Your task to perform on an android device: Open Google Chrome Image 0: 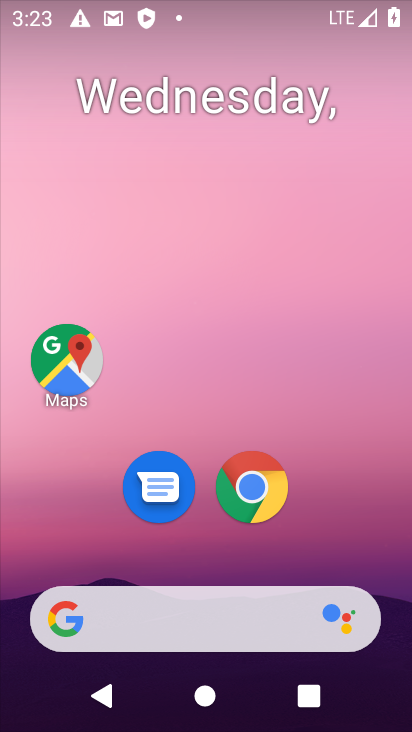
Step 0: drag from (342, 521) to (327, 6)
Your task to perform on an android device: Open Google Chrome Image 1: 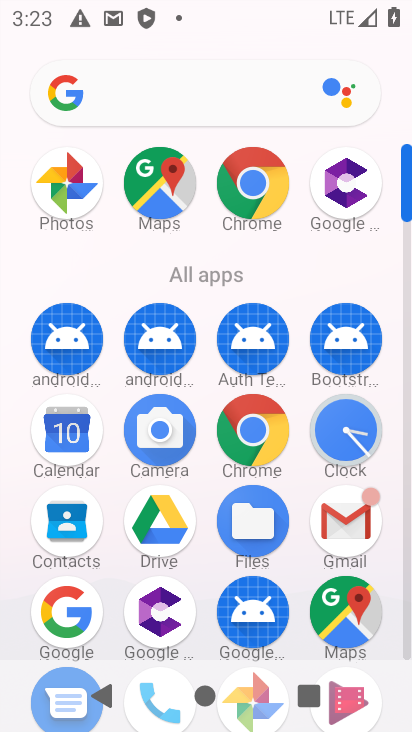
Step 1: click (258, 417)
Your task to perform on an android device: Open Google Chrome Image 2: 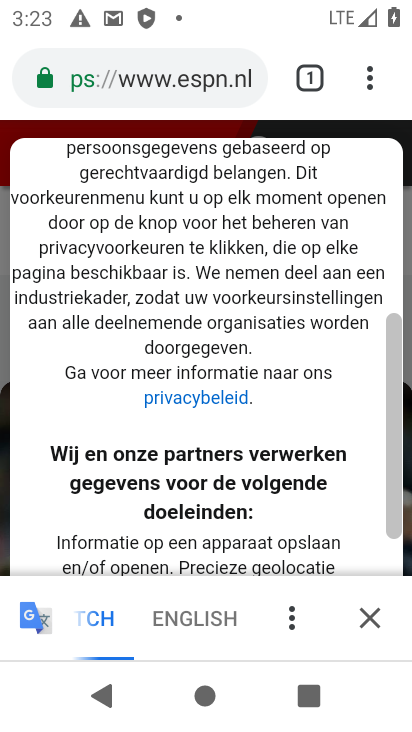
Step 2: task complete